Your task to perform on an android device: Open Chrome and go to the settings page Image 0: 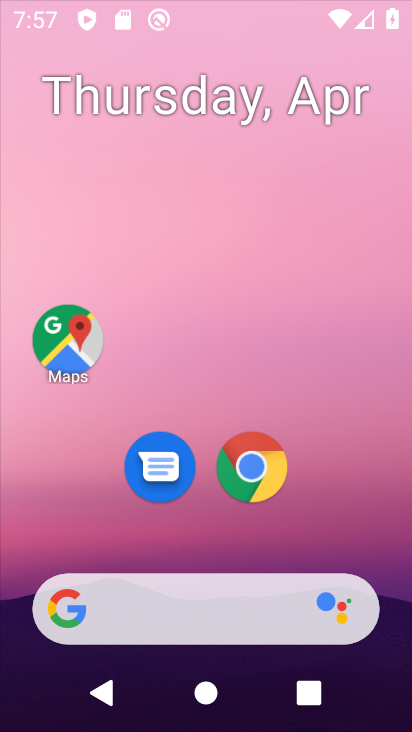
Step 0: drag from (168, 305) to (178, 157)
Your task to perform on an android device: Open Chrome and go to the settings page Image 1: 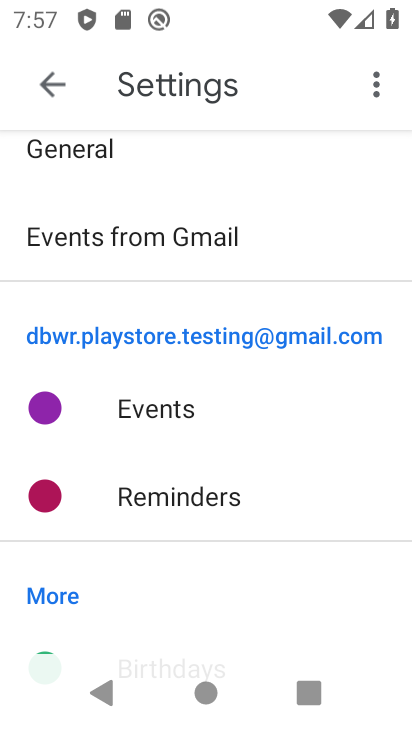
Step 1: press home button
Your task to perform on an android device: Open Chrome and go to the settings page Image 2: 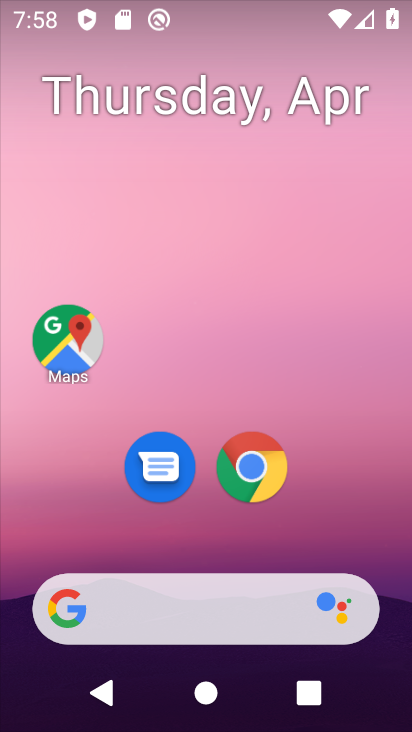
Step 2: click (276, 466)
Your task to perform on an android device: Open Chrome and go to the settings page Image 3: 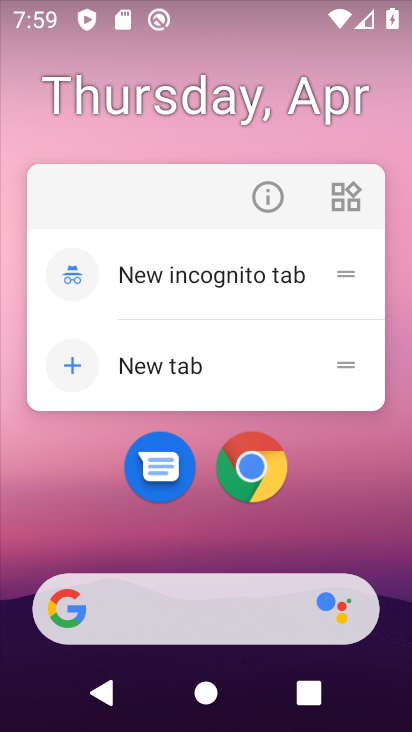
Step 3: click (276, 466)
Your task to perform on an android device: Open Chrome and go to the settings page Image 4: 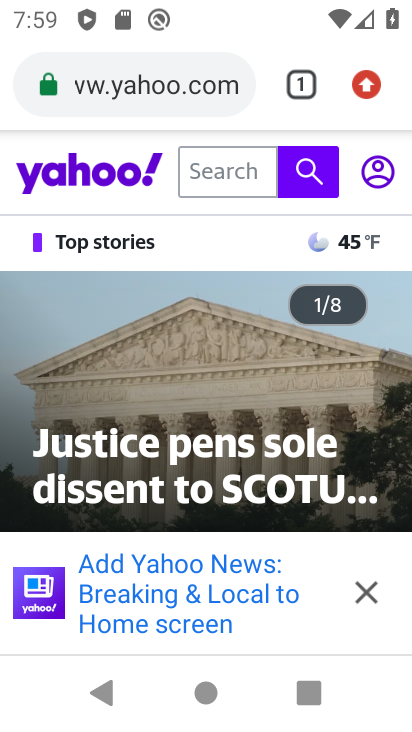
Step 4: task complete